Your task to perform on an android device: check the backup settings in the google photos Image 0: 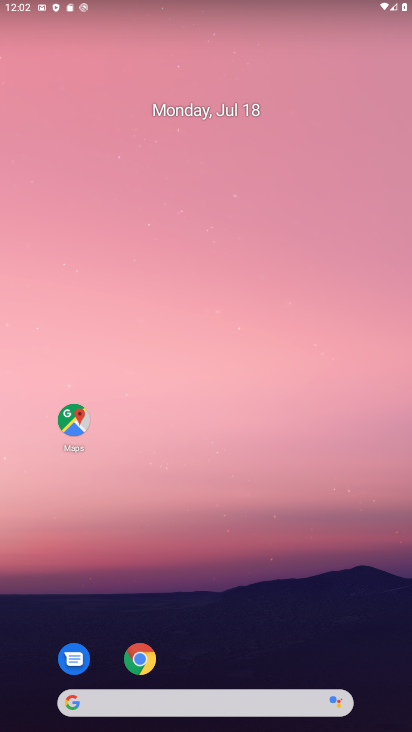
Step 0: drag from (208, 665) to (293, 51)
Your task to perform on an android device: check the backup settings in the google photos Image 1: 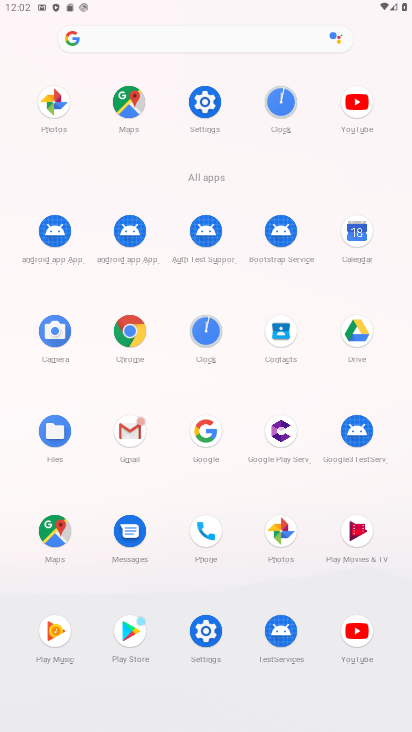
Step 1: click (279, 523)
Your task to perform on an android device: check the backup settings in the google photos Image 2: 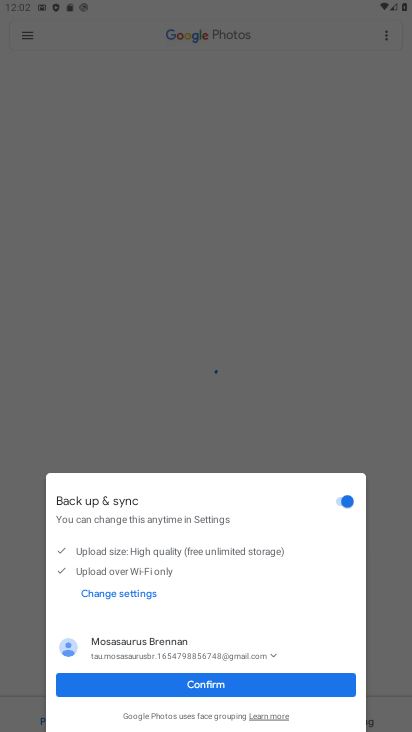
Step 2: click (248, 664)
Your task to perform on an android device: check the backup settings in the google photos Image 3: 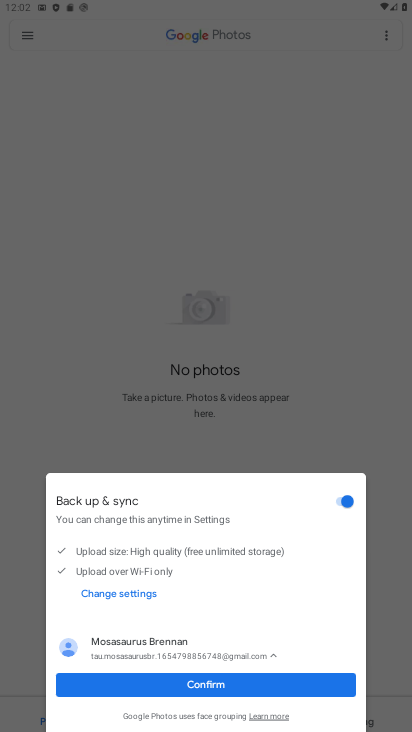
Step 3: click (240, 682)
Your task to perform on an android device: check the backup settings in the google photos Image 4: 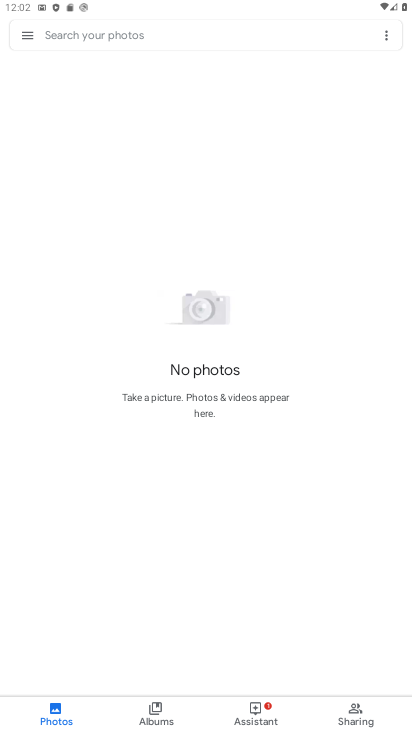
Step 4: click (33, 48)
Your task to perform on an android device: check the backup settings in the google photos Image 5: 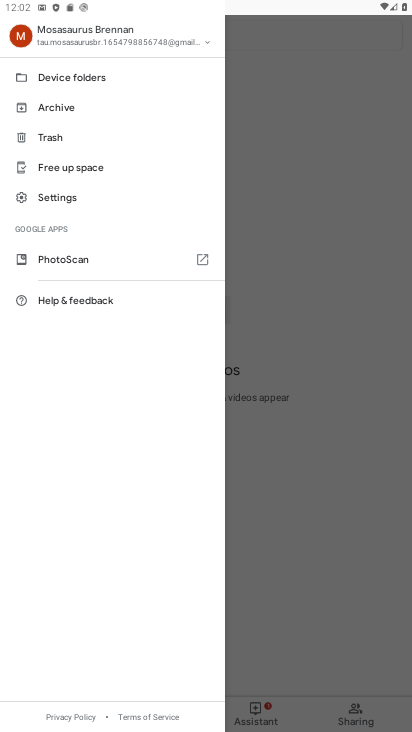
Step 5: click (89, 205)
Your task to perform on an android device: check the backup settings in the google photos Image 6: 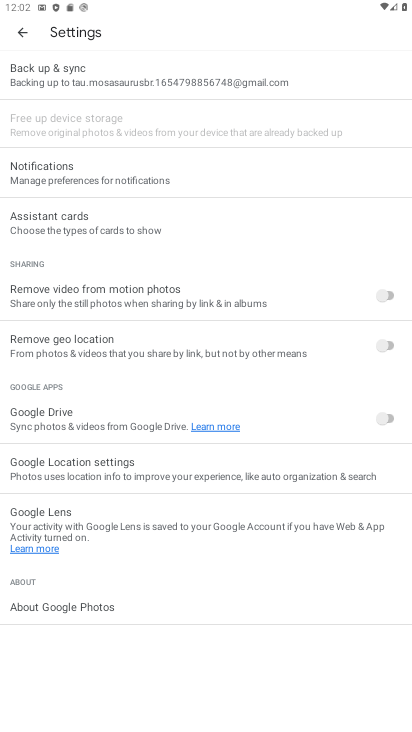
Step 6: click (125, 95)
Your task to perform on an android device: check the backup settings in the google photos Image 7: 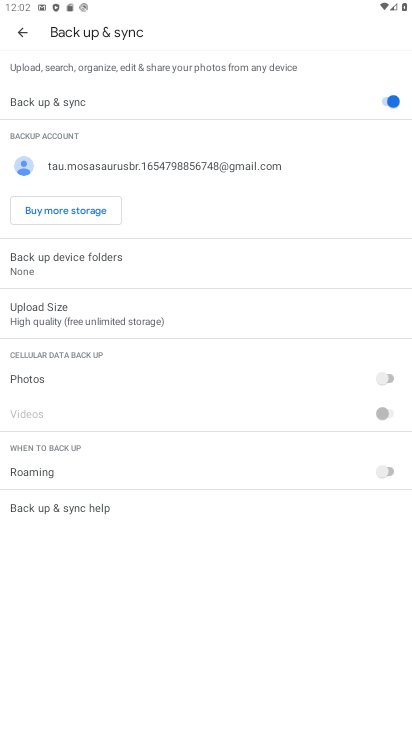
Step 7: task complete